Your task to perform on an android device: turn on the 24-hour format for clock Image 0: 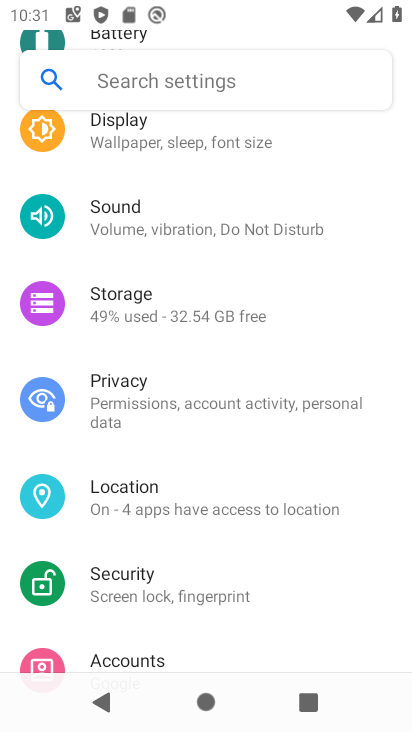
Step 0: press home button
Your task to perform on an android device: turn on the 24-hour format for clock Image 1: 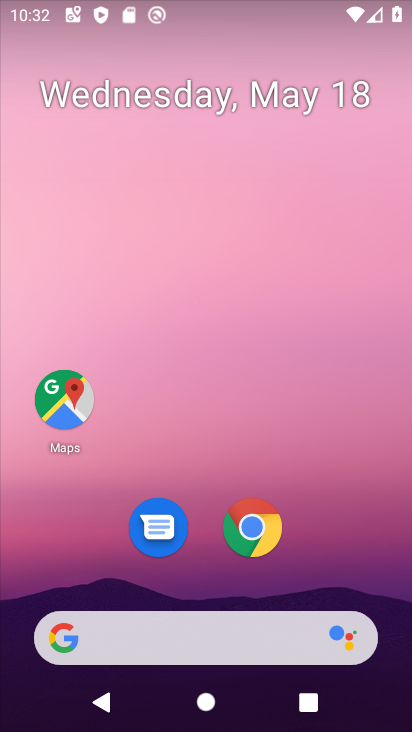
Step 1: drag from (373, 574) to (303, 80)
Your task to perform on an android device: turn on the 24-hour format for clock Image 2: 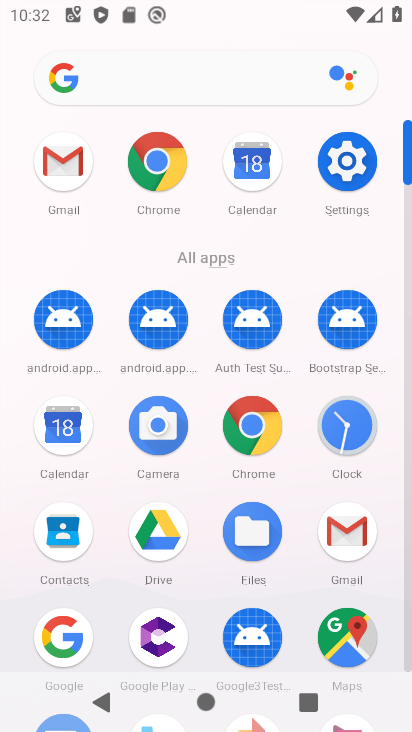
Step 2: click (339, 167)
Your task to perform on an android device: turn on the 24-hour format for clock Image 3: 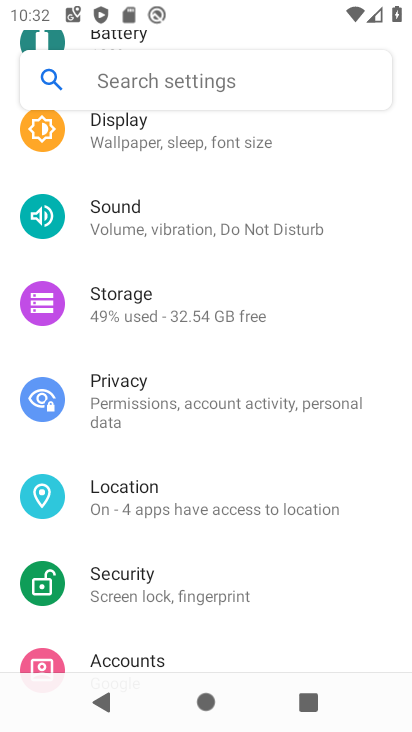
Step 3: press home button
Your task to perform on an android device: turn on the 24-hour format for clock Image 4: 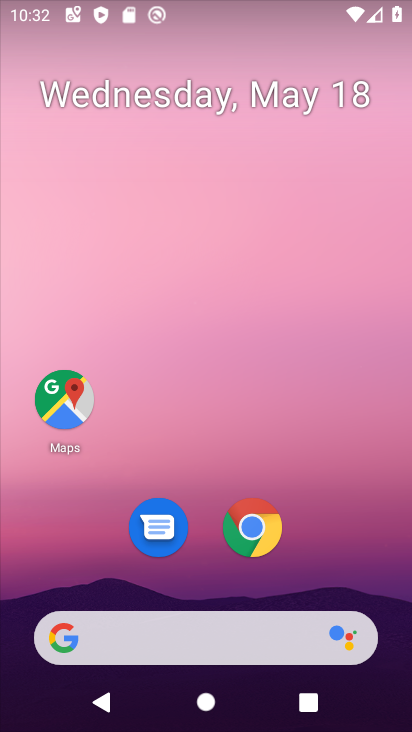
Step 4: drag from (351, 508) to (260, 5)
Your task to perform on an android device: turn on the 24-hour format for clock Image 5: 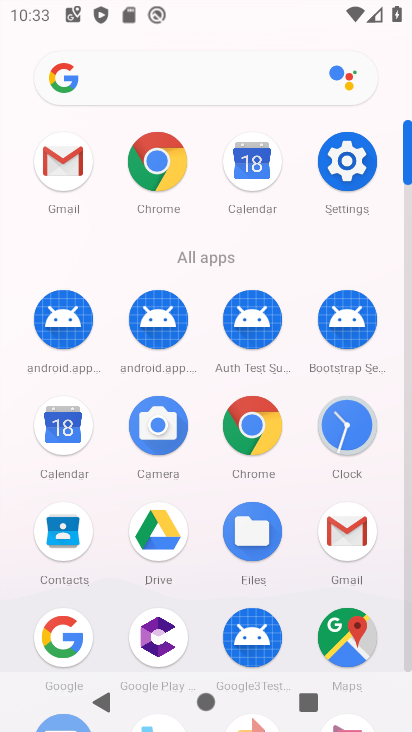
Step 5: click (362, 407)
Your task to perform on an android device: turn on the 24-hour format for clock Image 6: 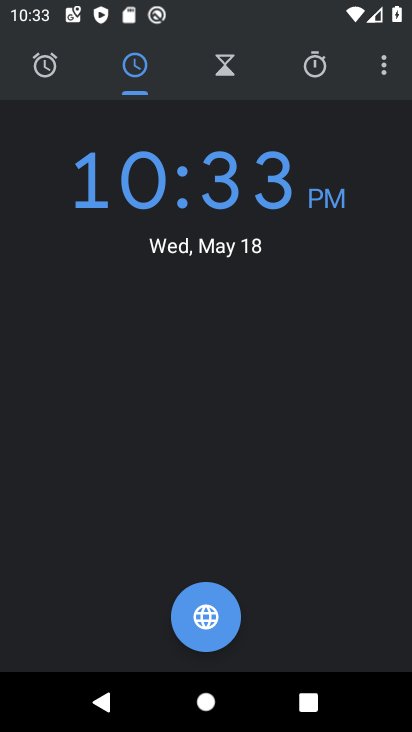
Step 6: click (366, 86)
Your task to perform on an android device: turn on the 24-hour format for clock Image 7: 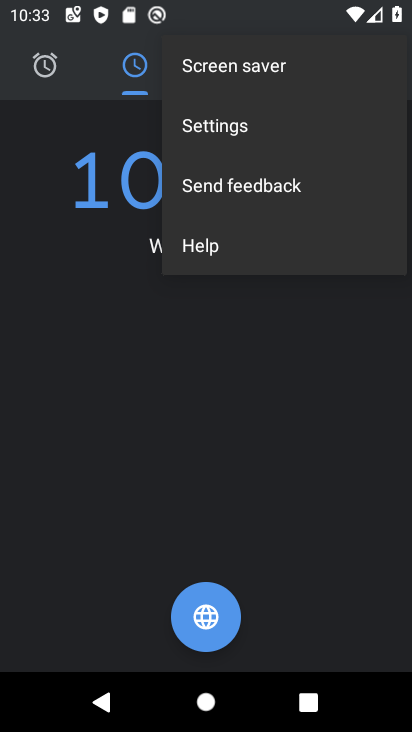
Step 7: click (266, 136)
Your task to perform on an android device: turn on the 24-hour format for clock Image 8: 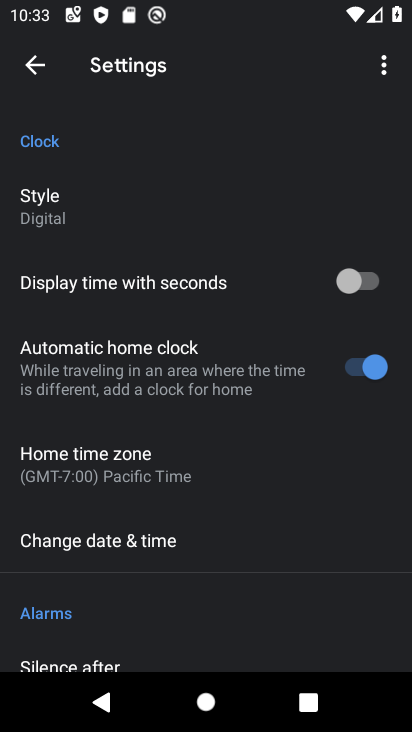
Step 8: click (155, 523)
Your task to perform on an android device: turn on the 24-hour format for clock Image 9: 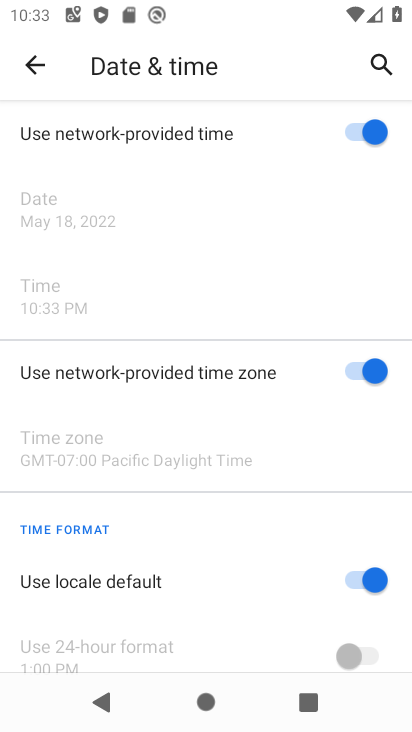
Step 9: click (344, 582)
Your task to perform on an android device: turn on the 24-hour format for clock Image 10: 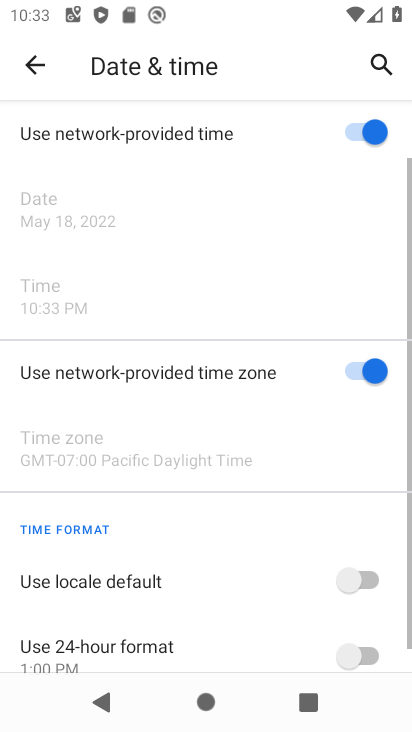
Step 10: click (355, 667)
Your task to perform on an android device: turn on the 24-hour format for clock Image 11: 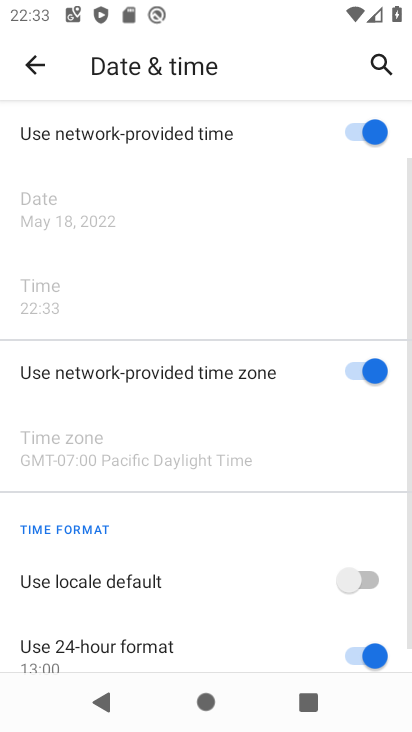
Step 11: task complete